Your task to perform on an android device: Show me popular videos on Youtube Image 0: 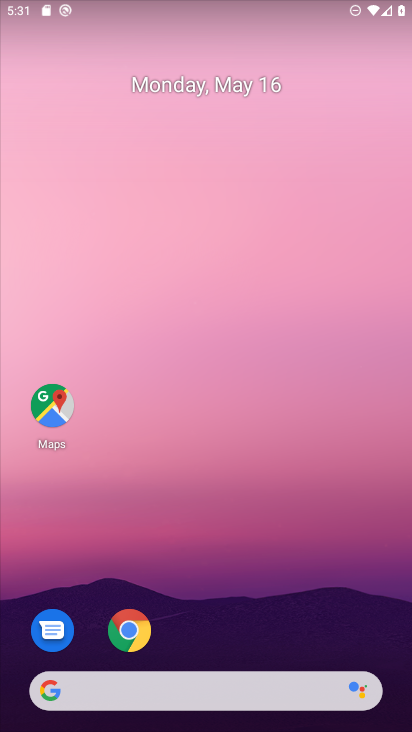
Step 0: drag from (300, 651) to (382, 9)
Your task to perform on an android device: Show me popular videos on Youtube Image 1: 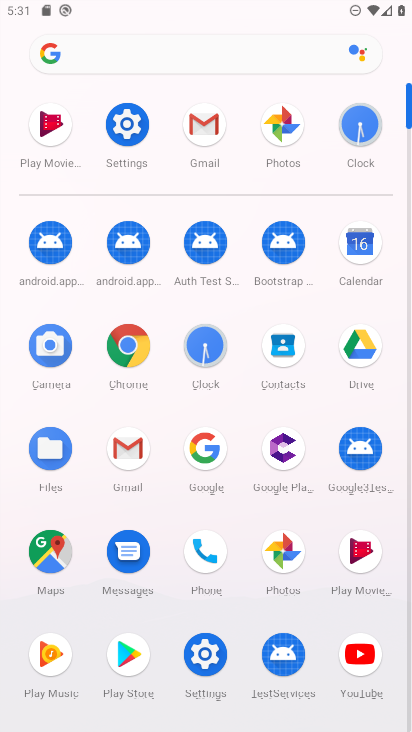
Step 1: click (360, 658)
Your task to perform on an android device: Show me popular videos on Youtube Image 2: 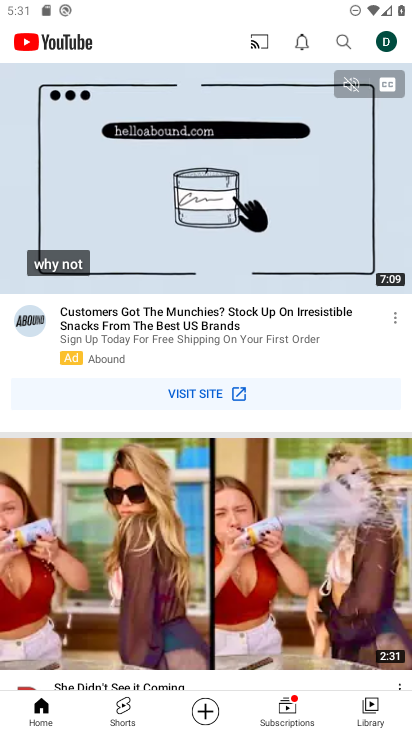
Step 2: click (337, 43)
Your task to perform on an android device: Show me popular videos on Youtube Image 3: 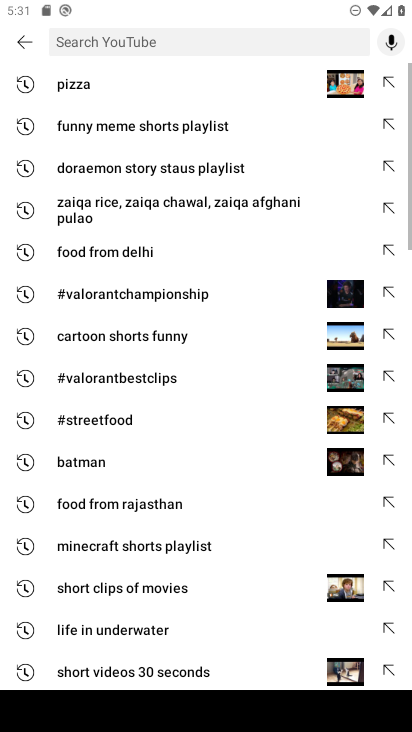
Step 3: click (241, 37)
Your task to perform on an android device: Show me popular videos on Youtube Image 4: 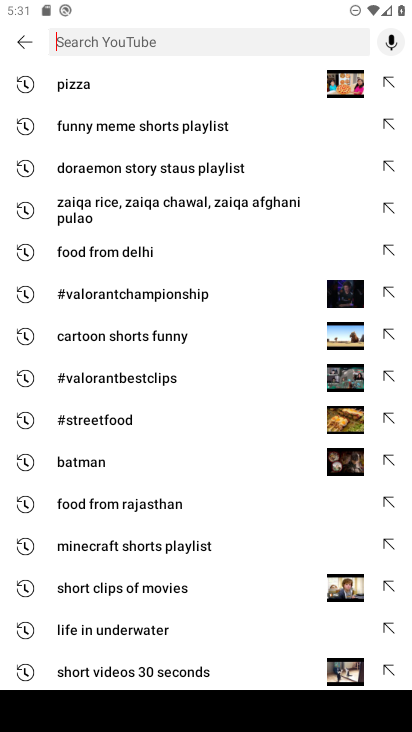
Step 4: type " popular videos"
Your task to perform on an android device: Show me popular videos on Youtube Image 5: 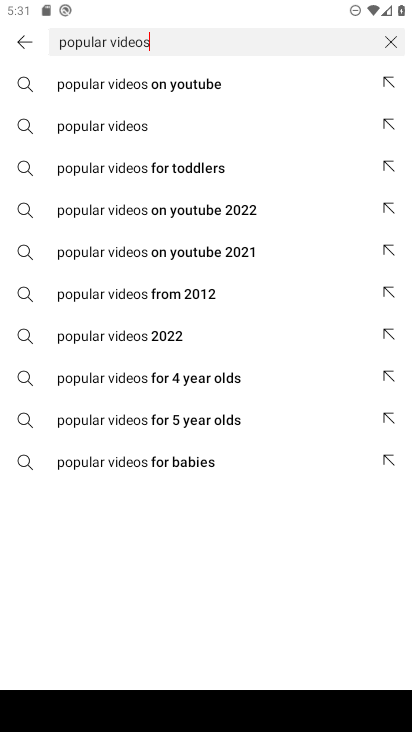
Step 5: click (113, 76)
Your task to perform on an android device: Show me popular videos on Youtube Image 6: 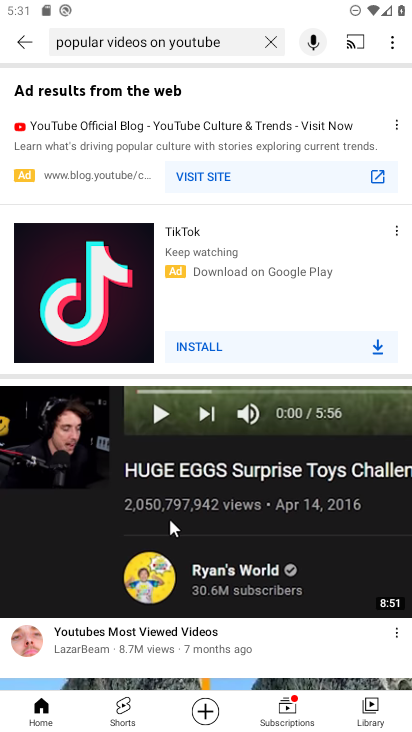
Step 6: task complete